Your task to perform on an android device: Go to wifi settings Image 0: 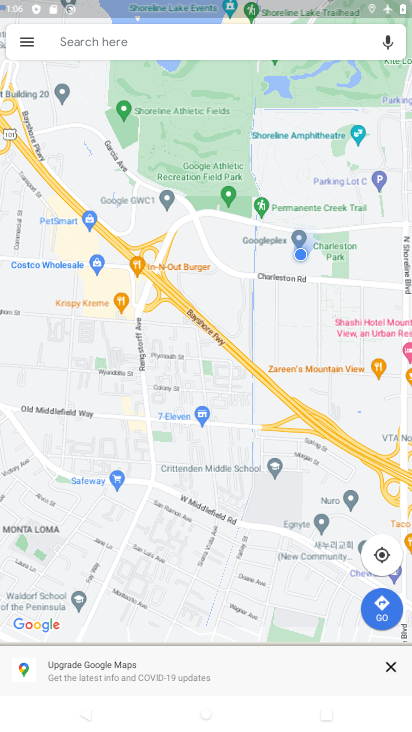
Step 0: press home button
Your task to perform on an android device: Go to wifi settings Image 1: 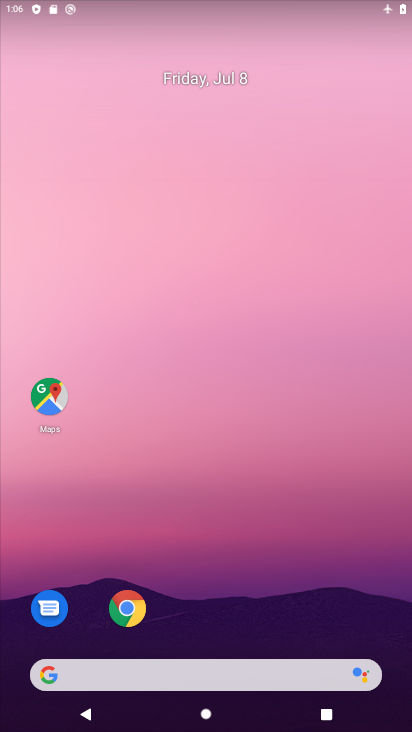
Step 1: drag from (369, 635) to (300, 26)
Your task to perform on an android device: Go to wifi settings Image 2: 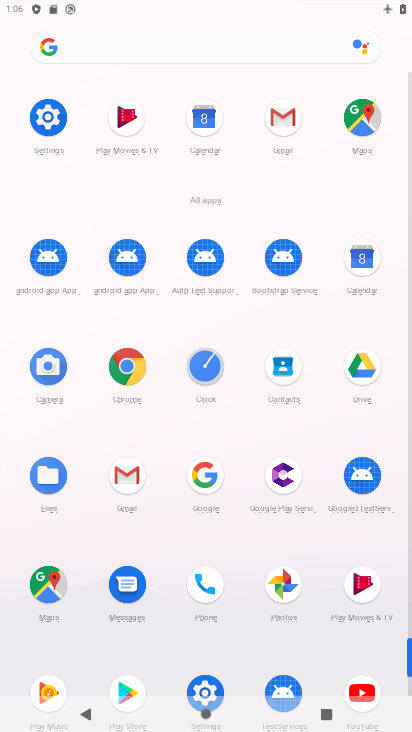
Step 2: click (203, 686)
Your task to perform on an android device: Go to wifi settings Image 3: 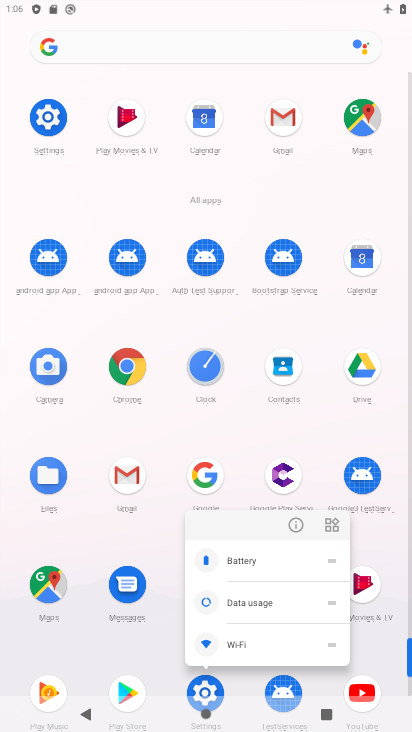
Step 3: click (410, 691)
Your task to perform on an android device: Go to wifi settings Image 4: 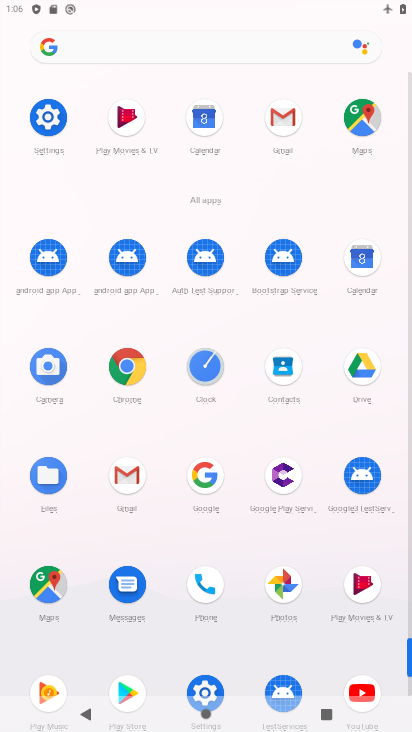
Step 4: click (206, 684)
Your task to perform on an android device: Go to wifi settings Image 5: 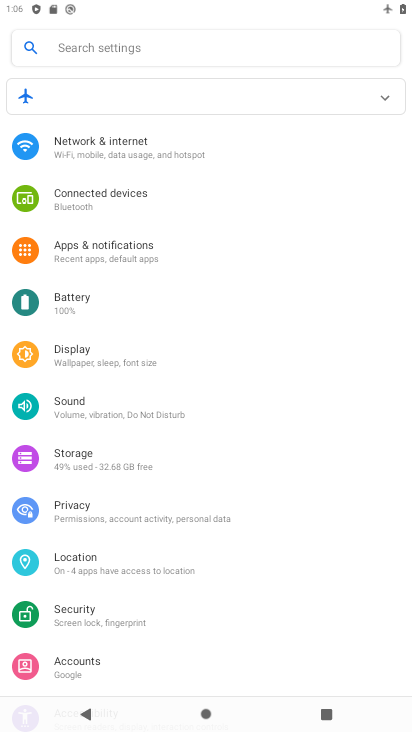
Step 5: click (99, 141)
Your task to perform on an android device: Go to wifi settings Image 6: 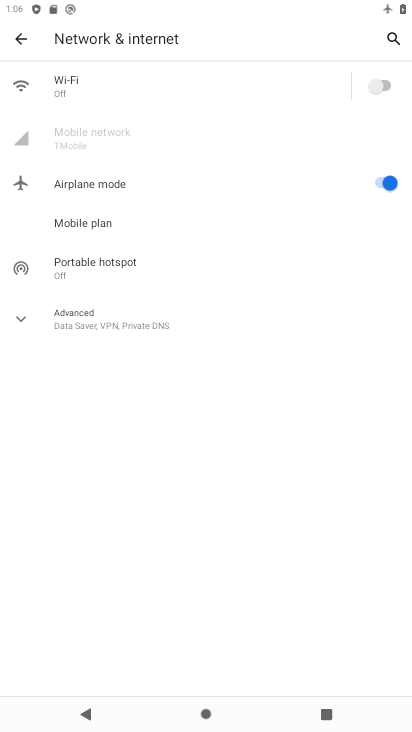
Step 6: click (51, 84)
Your task to perform on an android device: Go to wifi settings Image 7: 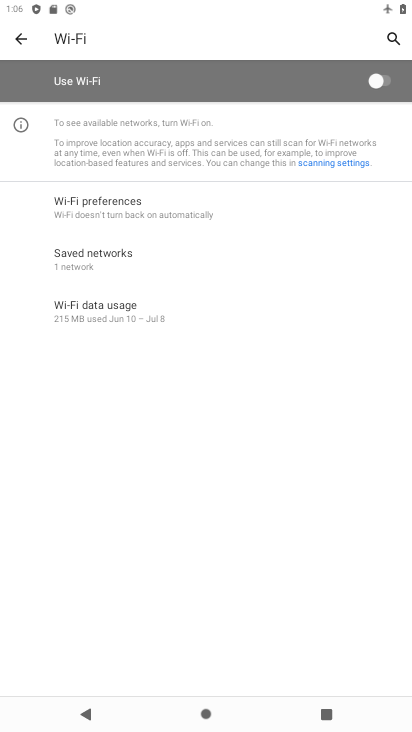
Step 7: task complete